Your task to perform on an android device: Do I have any events this weekend? Image 0: 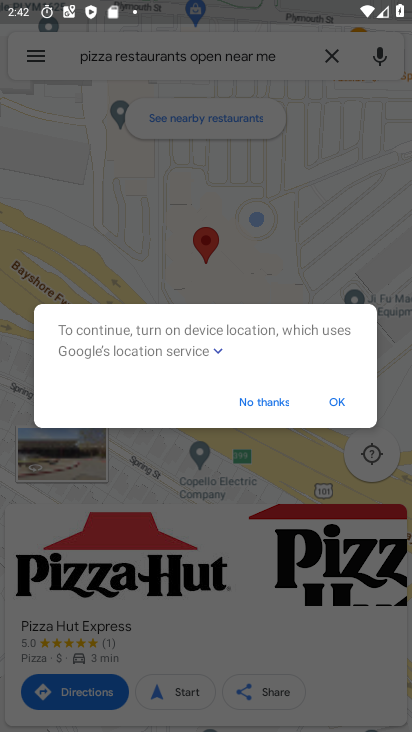
Step 0: press home button
Your task to perform on an android device: Do I have any events this weekend? Image 1: 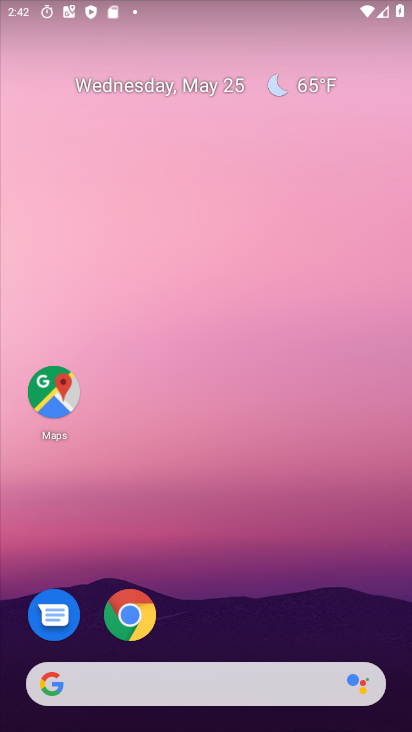
Step 1: drag from (394, 681) to (345, 300)
Your task to perform on an android device: Do I have any events this weekend? Image 2: 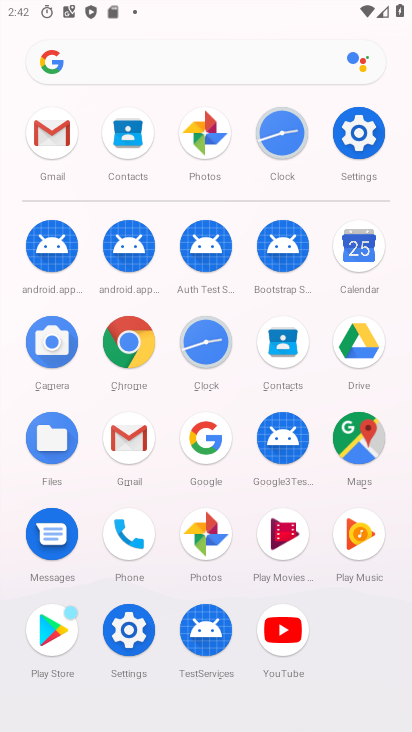
Step 2: click (357, 242)
Your task to perform on an android device: Do I have any events this weekend? Image 3: 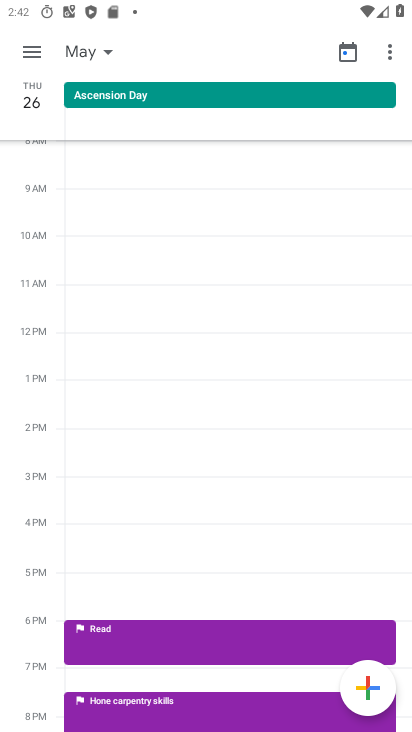
Step 3: click (24, 46)
Your task to perform on an android device: Do I have any events this weekend? Image 4: 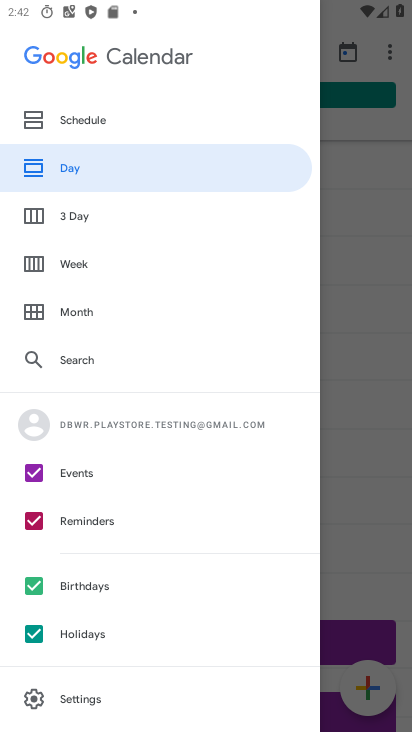
Step 4: click (56, 259)
Your task to perform on an android device: Do I have any events this weekend? Image 5: 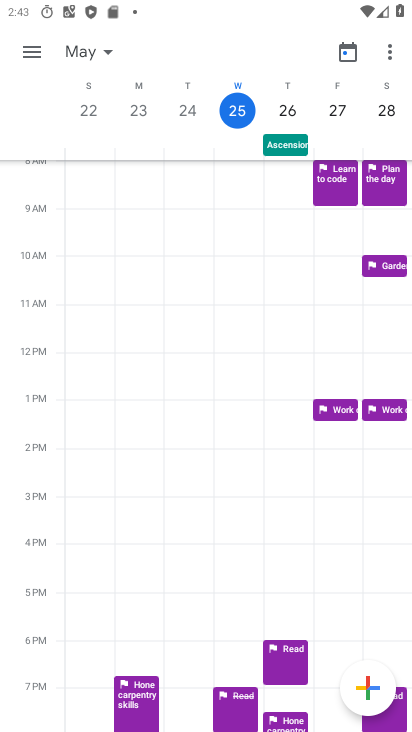
Step 5: task complete